Your task to perform on an android device: Go to wifi settings Image 0: 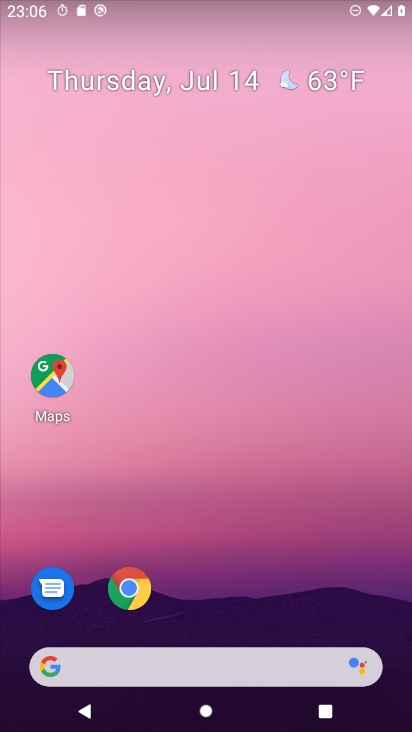
Step 0: drag from (347, 573) to (363, 70)
Your task to perform on an android device: Go to wifi settings Image 1: 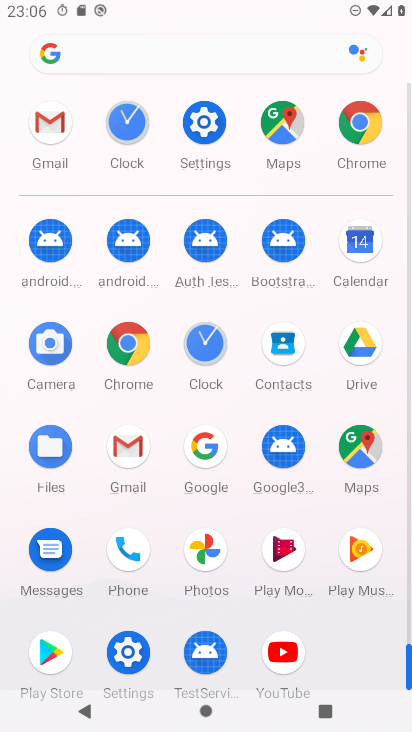
Step 1: click (208, 134)
Your task to perform on an android device: Go to wifi settings Image 2: 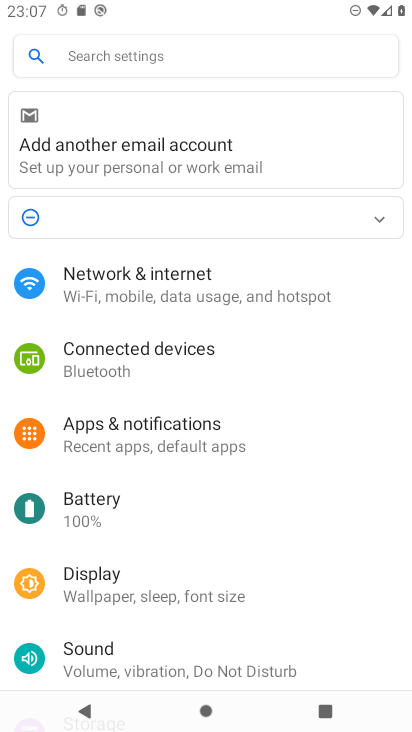
Step 2: drag from (305, 499) to (348, 301)
Your task to perform on an android device: Go to wifi settings Image 3: 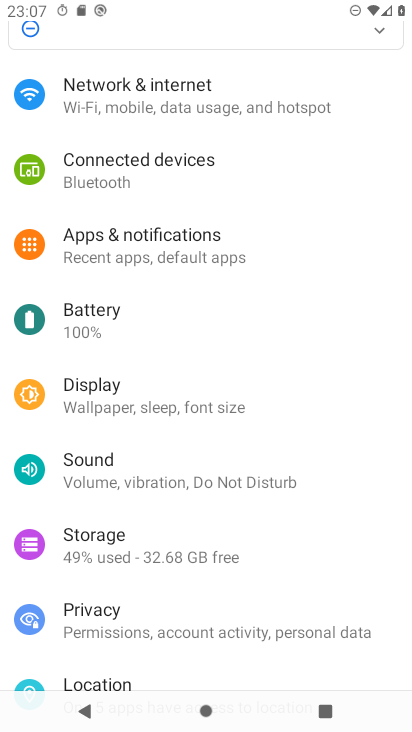
Step 3: drag from (358, 499) to (370, 243)
Your task to perform on an android device: Go to wifi settings Image 4: 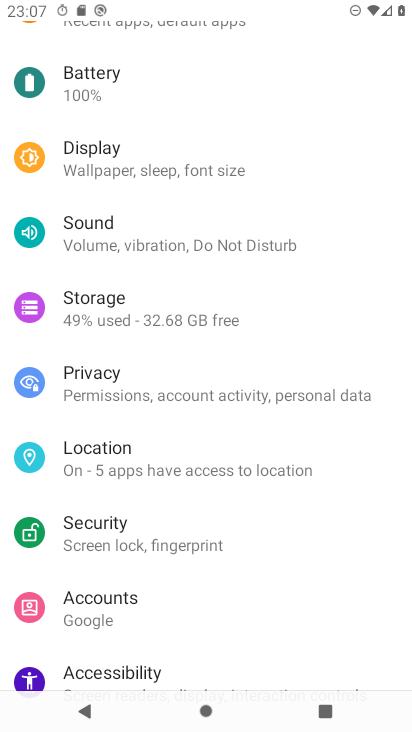
Step 4: drag from (346, 509) to (364, 258)
Your task to perform on an android device: Go to wifi settings Image 5: 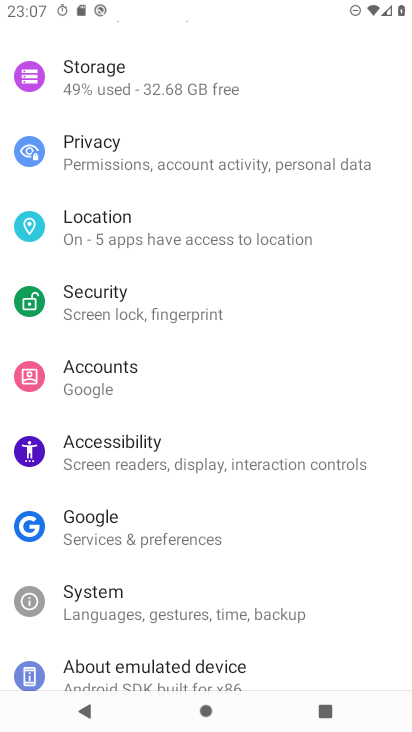
Step 5: drag from (364, 258) to (371, 413)
Your task to perform on an android device: Go to wifi settings Image 6: 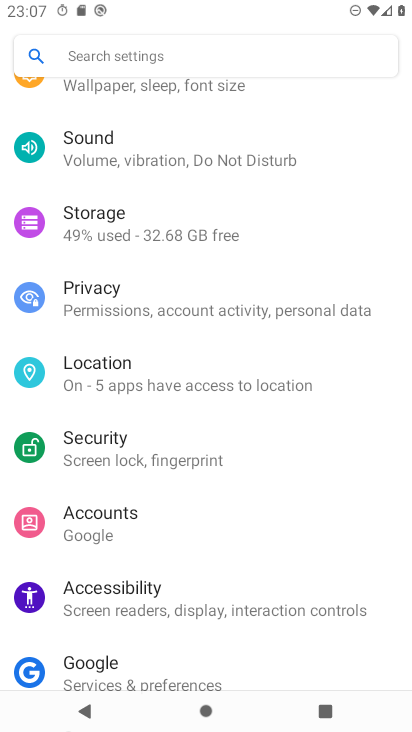
Step 6: drag from (371, 252) to (374, 450)
Your task to perform on an android device: Go to wifi settings Image 7: 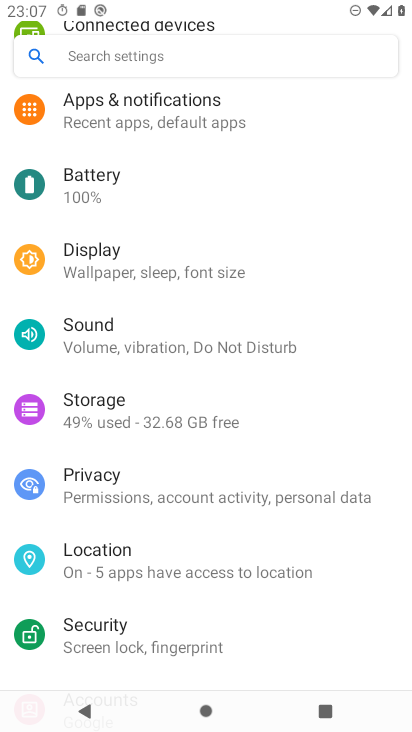
Step 7: drag from (379, 275) to (377, 453)
Your task to perform on an android device: Go to wifi settings Image 8: 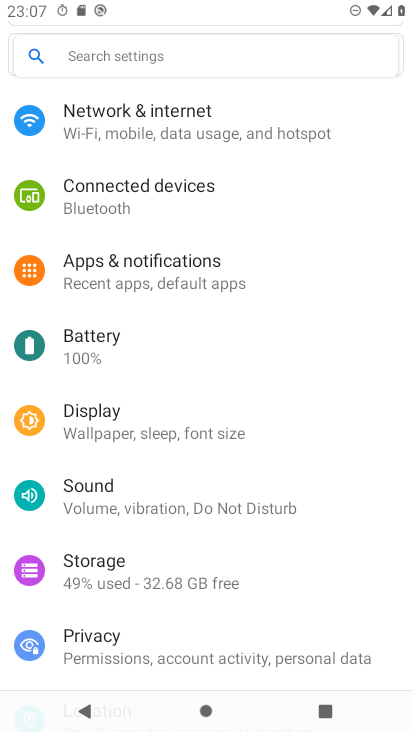
Step 8: drag from (347, 256) to (352, 381)
Your task to perform on an android device: Go to wifi settings Image 9: 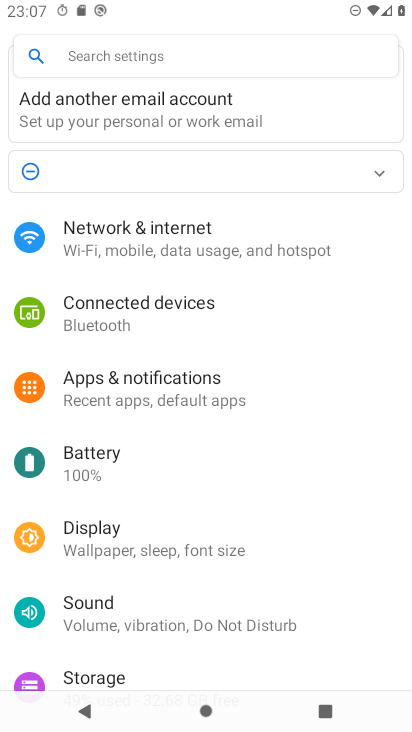
Step 9: click (311, 226)
Your task to perform on an android device: Go to wifi settings Image 10: 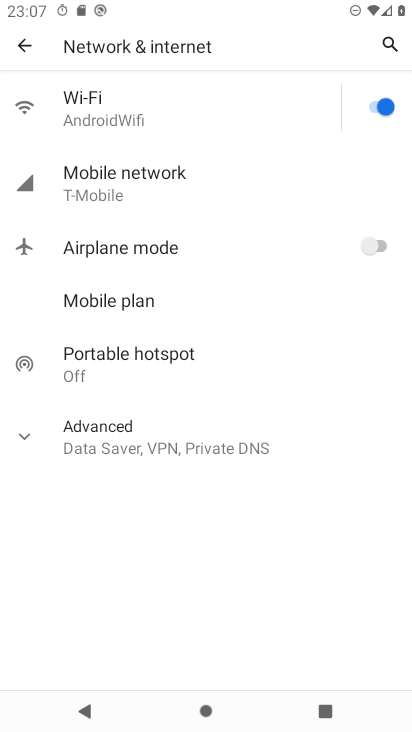
Step 10: click (125, 111)
Your task to perform on an android device: Go to wifi settings Image 11: 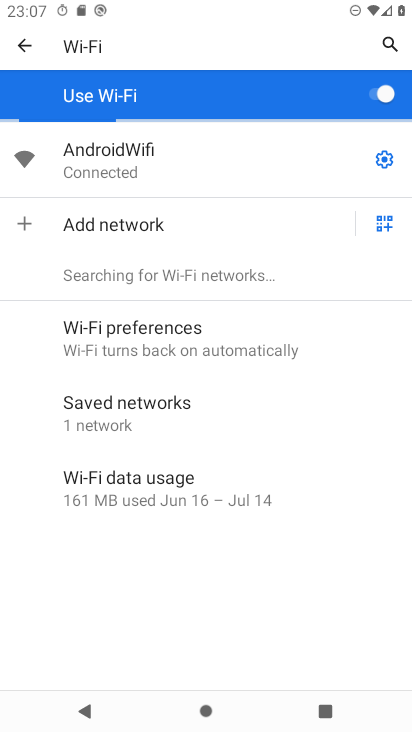
Step 11: task complete